Your task to perform on an android device: empty trash in google photos Image 0: 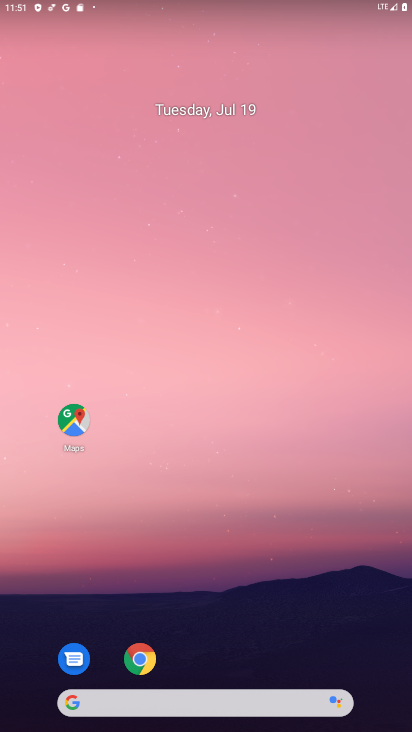
Step 0: drag from (312, 601) to (285, 137)
Your task to perform on an android device: empty trash in google photos Image 1: 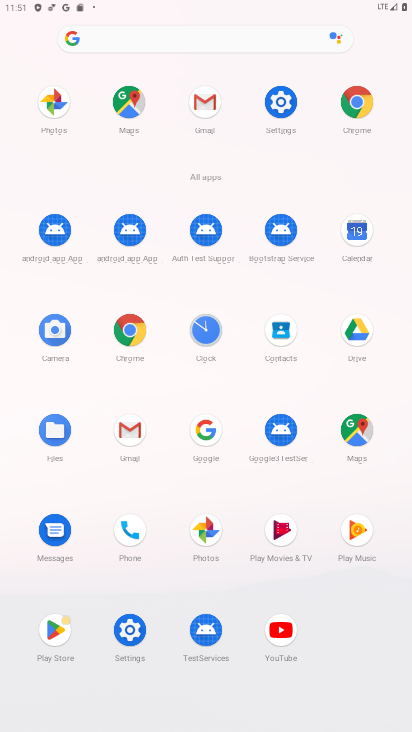
Step 1: click (214, 530)
Your task to perform on an android device: empty trash in google photos Image 2: 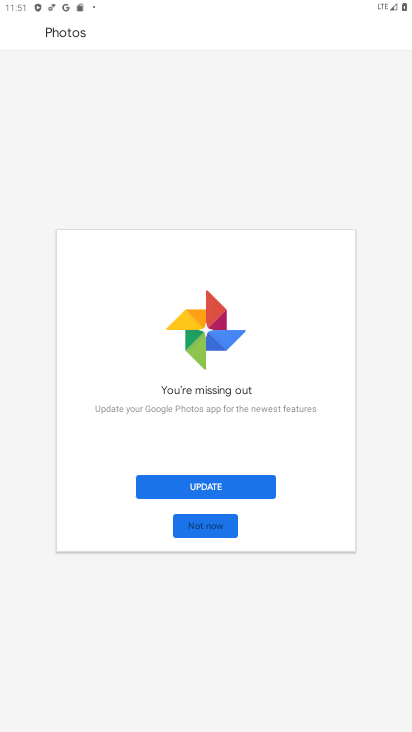
Step 2: click (214, 531)
Your task to perform on an android device: empty trash in google photos Image 3: 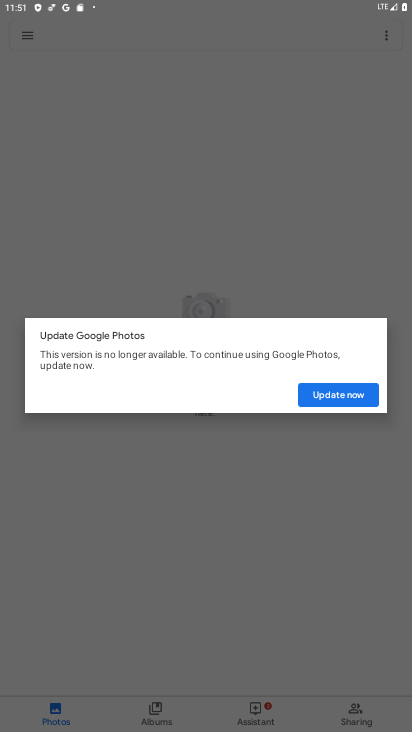
Step 3: click (319, 399)
Your task to perform on an android device: empty trash in google photos Image 4: 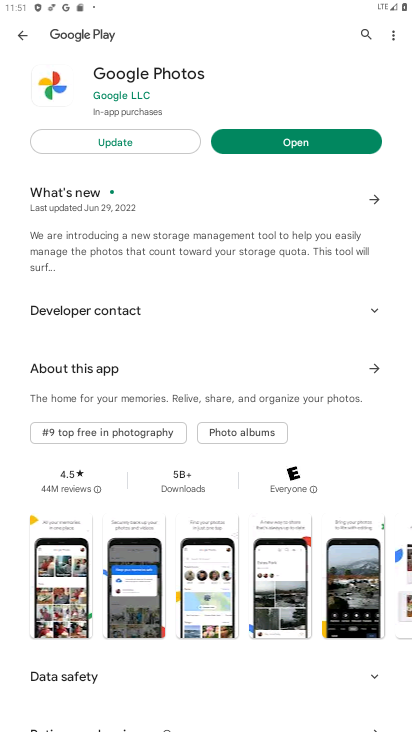
Step 4: click (136, 156)
Your task to perform on an android device: empty trash in google photos Image 5: 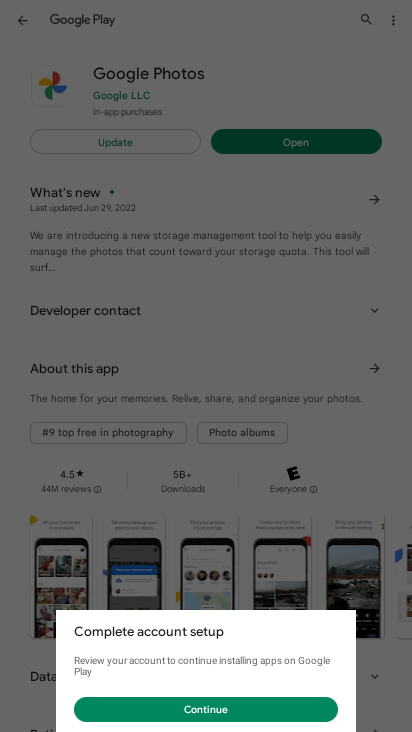
Step 5: click (262, 713)
Your task to perform on an android device: empty trash in google photos Image 6: 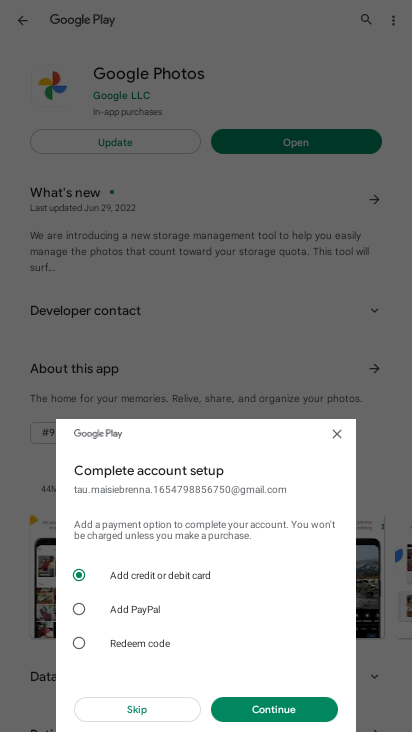
Step 6: click (147, 647)
Your task to perform on an android device: empty trash in google photos Image 7: 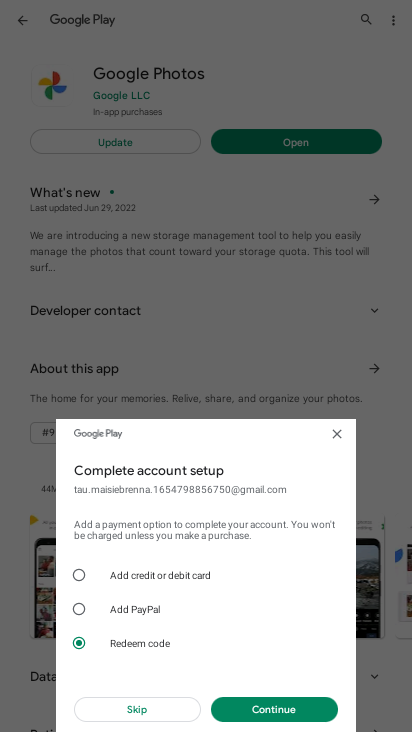
Step 7: click (149, 613)
Your task to perform on an android device: empty trash in google photos Image 8: 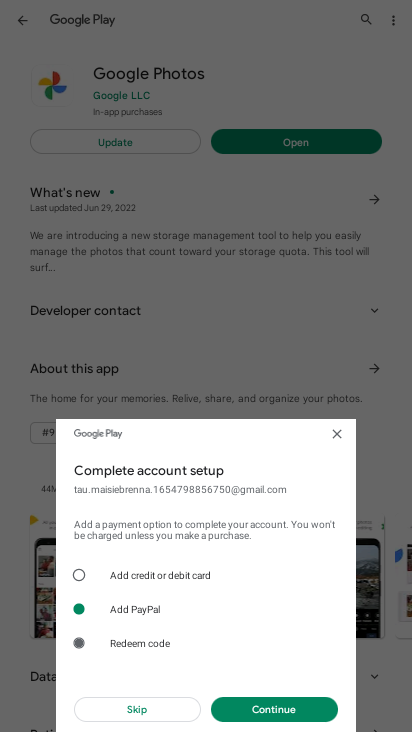
Step 8: click (141, 706)
Your task to perform on an android device: empty trash in google photos Image 9: 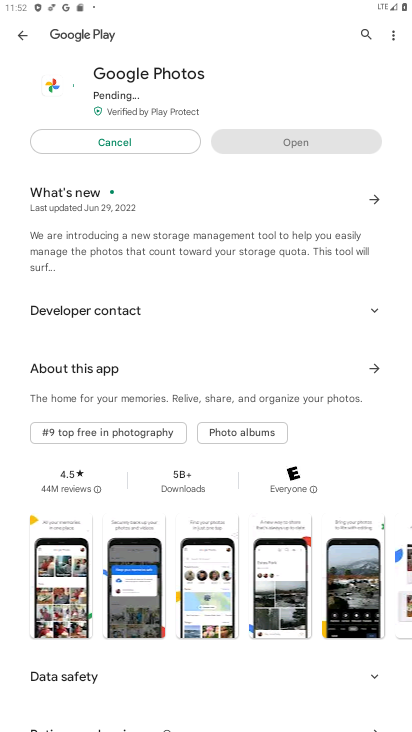
Step 9: task complete